Your task to perform on an android device: toggle airplane mode Image 0: 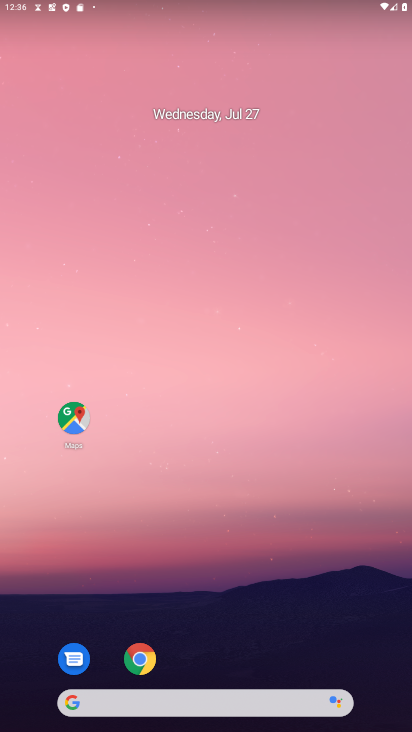
Step 0: press home button
Your task to perform on an android device: toggle airplane mode Image 1: 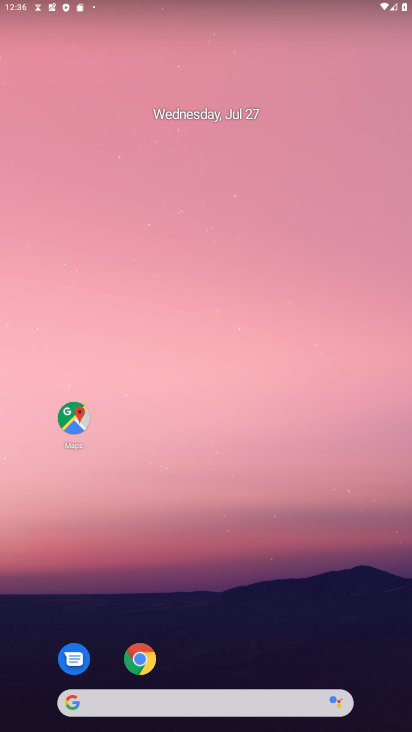
Step 1: drag from (254, 10) to (235, 536)
Your task to perform on an android device: toggle airplane mode Image 2: 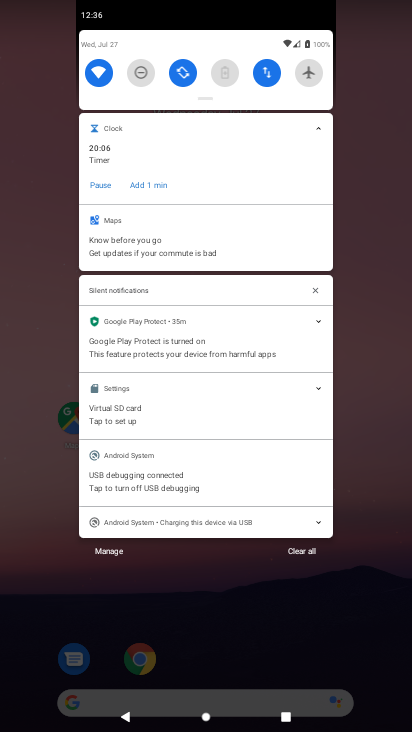
Step 2: click (309, 72)
Your task to perform on an android device: toggle airplane mode Image 3: 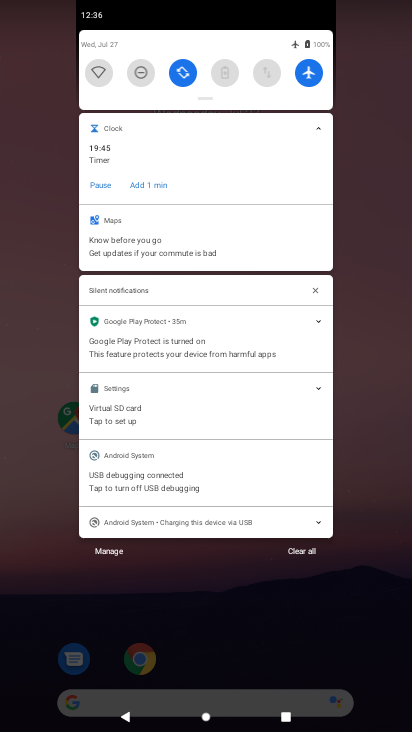
Step 3: task complete